Your task to perform on an android device: Go to Google Image 0: 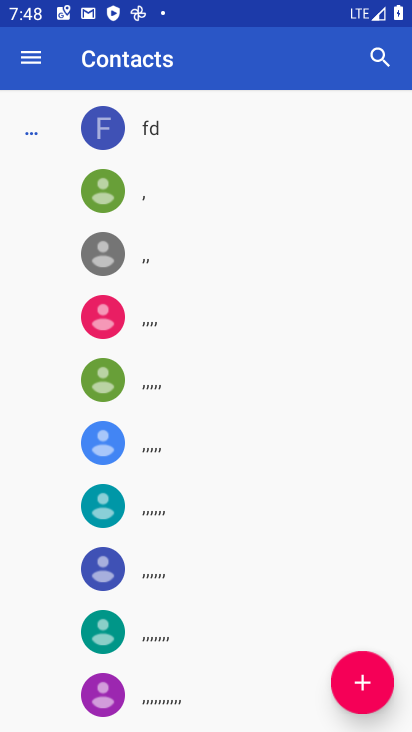
Step 0: press home button
Your task to perform on an android device: Go to Google Image 1: 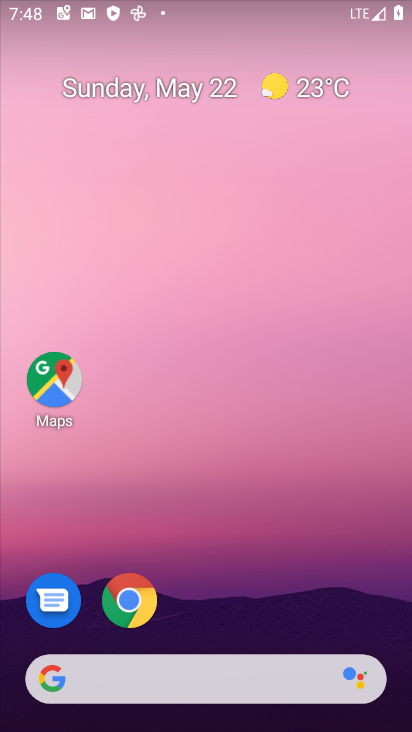
Step 1: drag from (363, 625) to (262, 262)
Your task to perform on an android device: Go to Google Image 2: 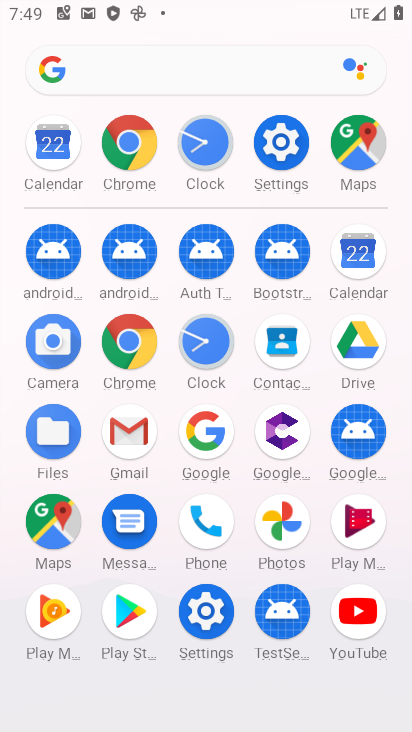
Step 2: click (195, 436)
Your task to perform on an android device: Go to Google Image 3: 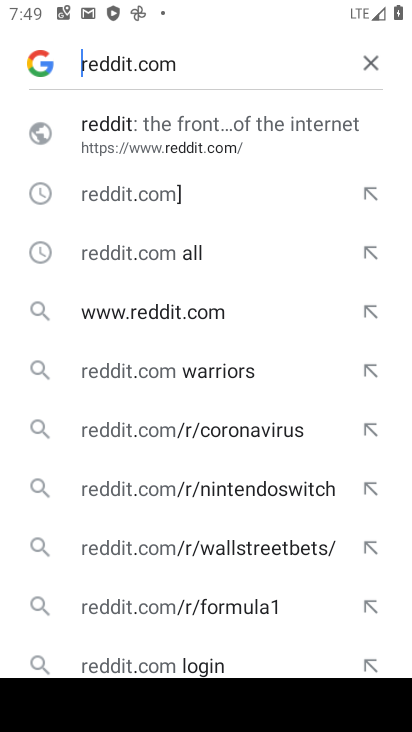
Step 3: click (377, 45)
Your task to perform on an android device: Go to Google Image 4: 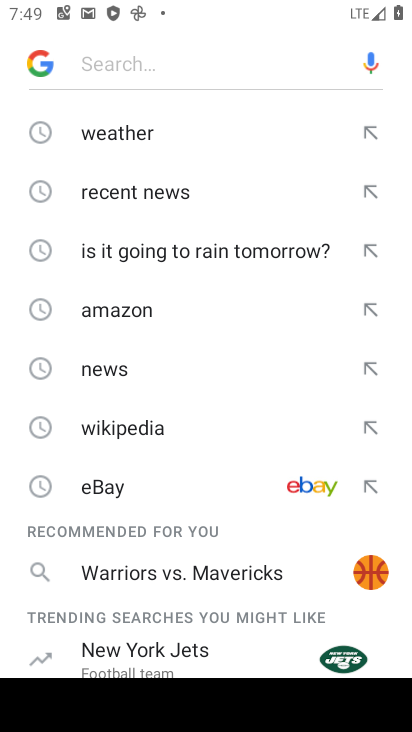
Step 4: task complete